Your task to perform on an android device: What's the news in the Dominican Republic? Image 0: 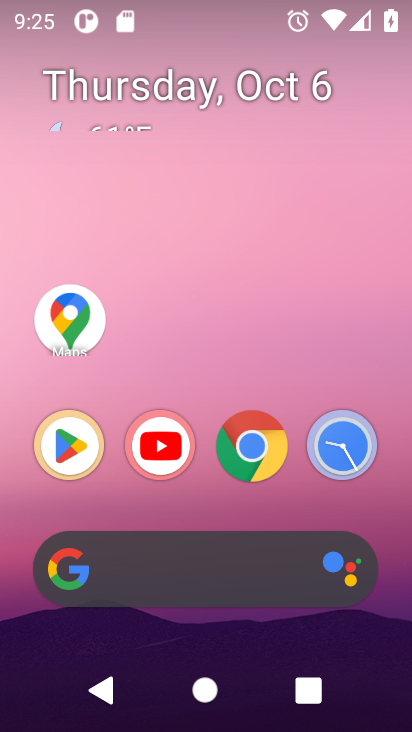
Step 0: click (170, 553)
Your task to perform on an android device: What's the news in the Dominican Republic? Image 1: 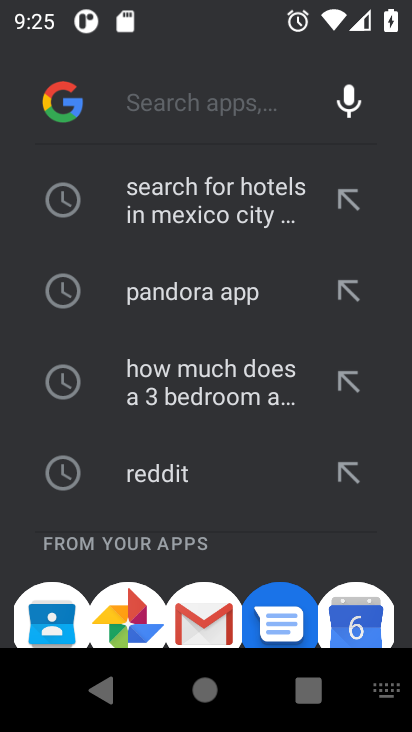
Step 1: type "What's the news in the Dominican Republic?"
Your task to perform on an android device: What's the news in the Dominican Republic? Image 2: 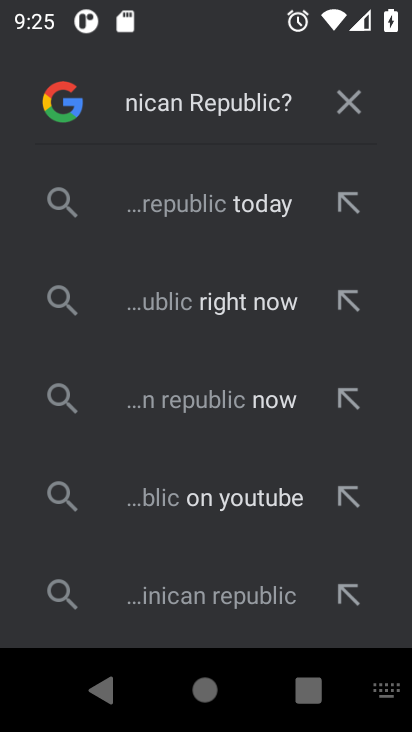
Step 2: click (161, 182)
Your task to perform on an android device: What's the news in the Dominican Republic? Image 3: 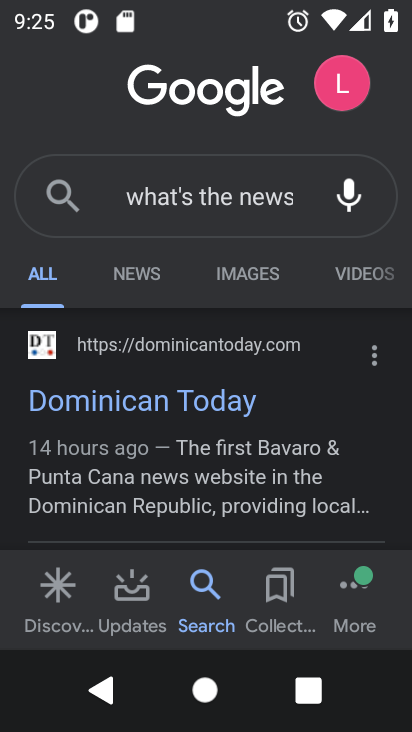
Step 3: click (181, 412)
Your task to perform on an android device: What's the news in the Dominican Republic? Image 4: 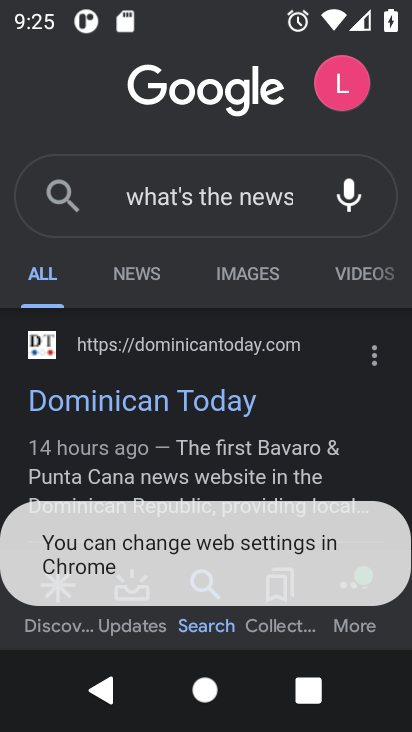
Step 4: task complete